Your task to perform on an android device: change the clock display to analog Image 0: 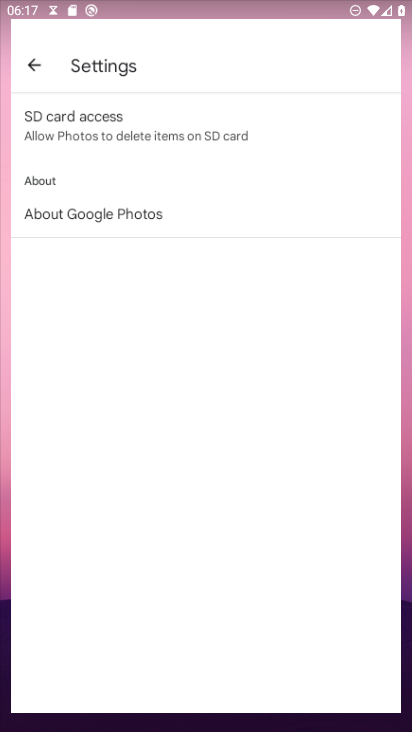
Step 0: drag from (285, 694) to (267, 36)
Your task to perform on an android device: change the clock display to analog Image 1: 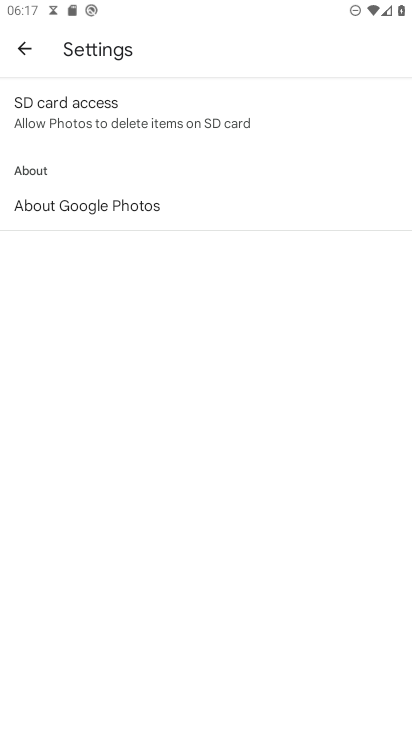
Step 1: press home button
Your task to perform on an android device: change the clock display to analog Image 2: 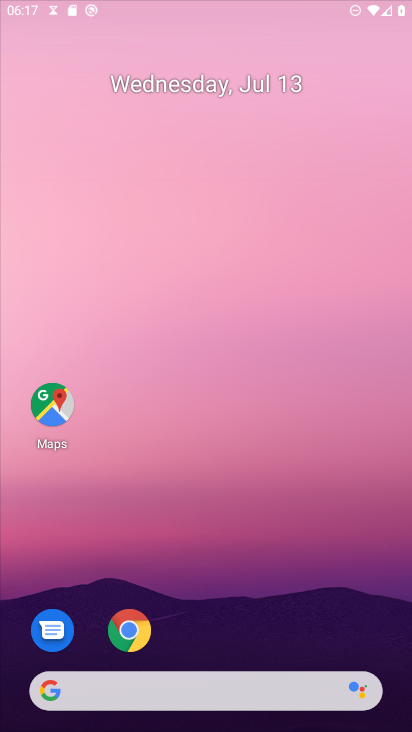
Step 2: drag from (285, 667) to (272, 79)
Your task to perform on an android device: change the clock display to analog Image 3: 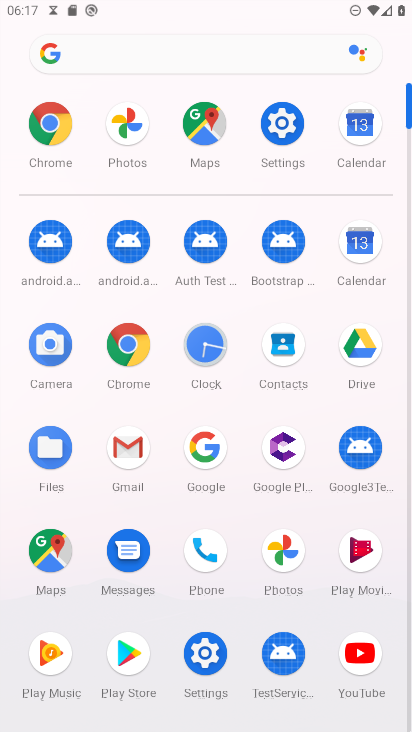
Step 3: click (278, 126)
Your task to perform on an android device: change the clock display to analog Image 4: 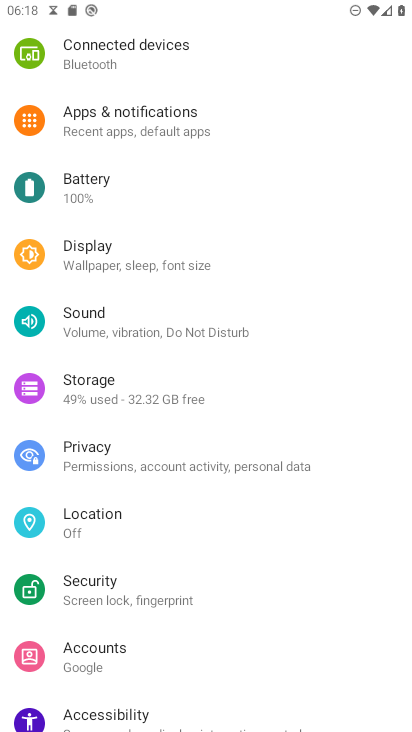
Step 4: press home button
Your task to perform on an android device: change the clock display to analog Image 5: 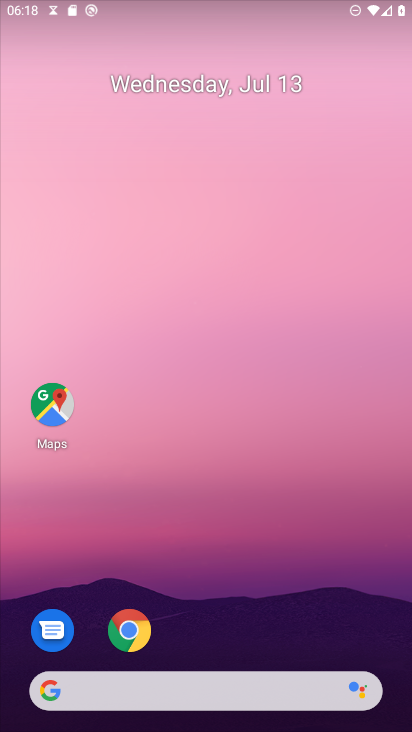
Step 5: drag from (312, 667) to (326, 17)
Your task to perform on an android device: change the clock display to analog Image 6: 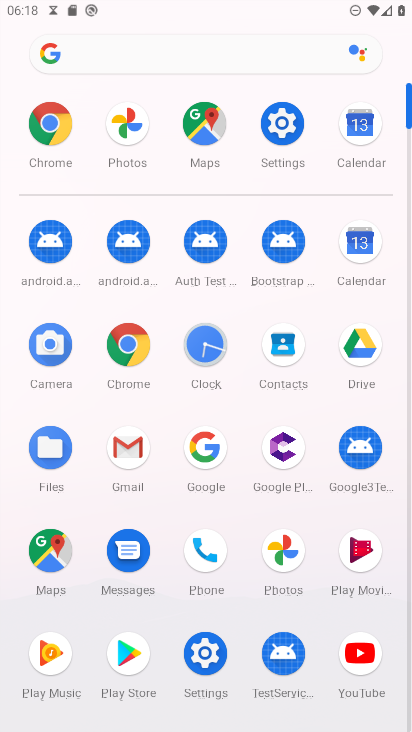
Step 6: click (195, 357)
Your task to perform on an android device: change the clock display to analog Image 7: 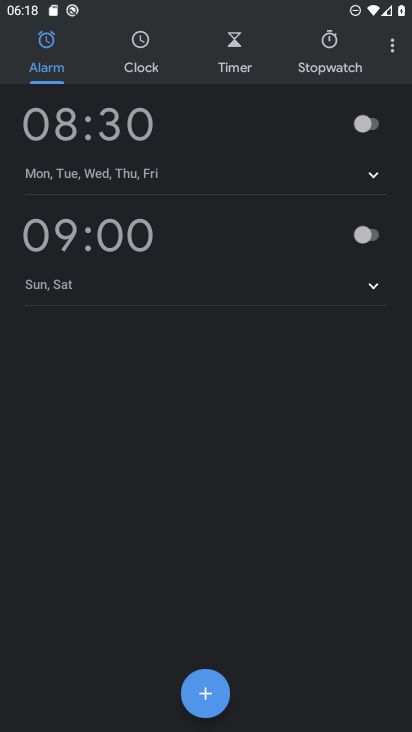
Step 7: click (390, 42)
Your task to perform on an android device: change the clock display to analog Image 8: 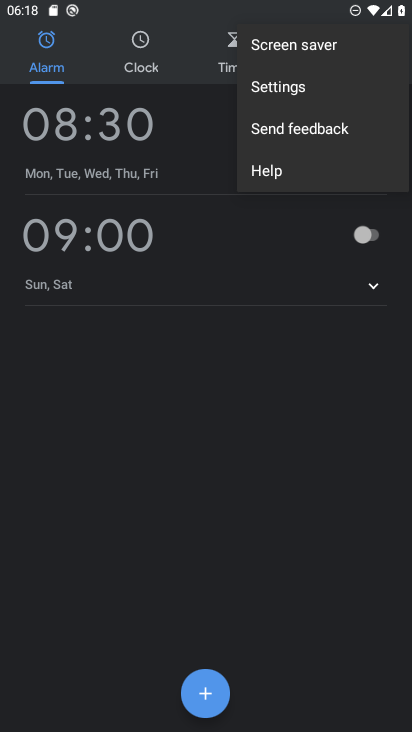
Step 8: click (310, 90)
Your task to perform on an android device: change the clock display to analog Image 9: 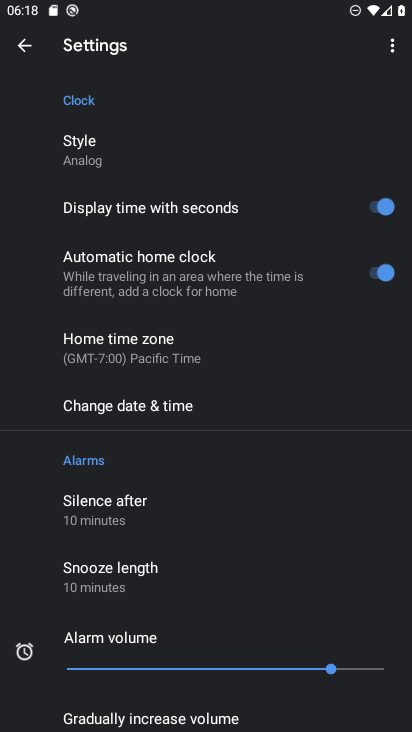
Step 9: task complete